Your task to perform on an android device: Go to privacy settings Image 0: 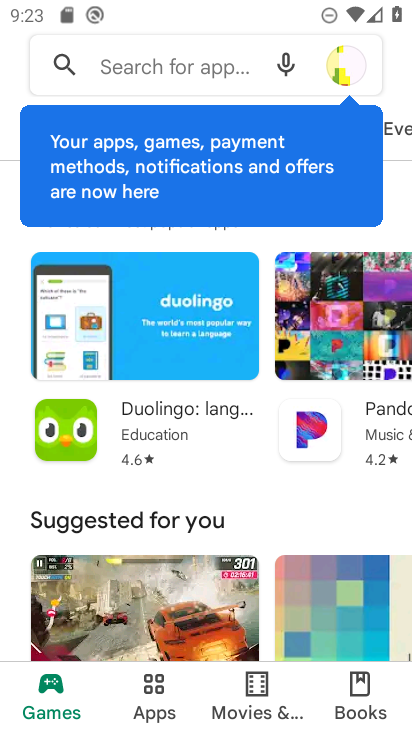
Step 0: press back button
Your task to perform on an android device: Go to privacy settings Image 1: 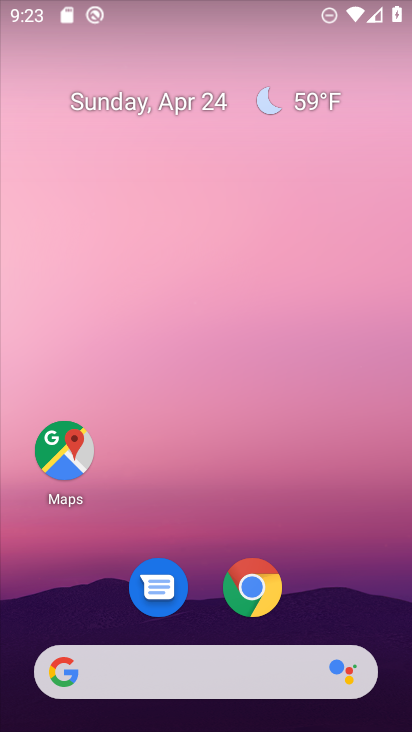
Step 1: drag from (228, 477) to (199, 65)
Your task to perform on an android device: Go to privacy settings Image 2: 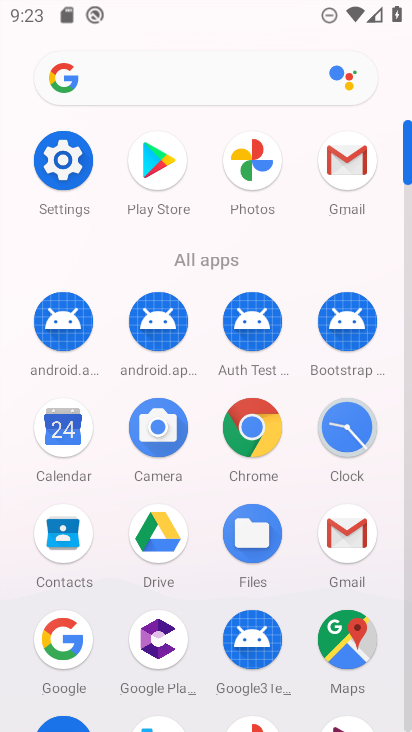
Step 2: click (61, 162)
Your task to perform on an android device: Go to privacy settings Image 3: 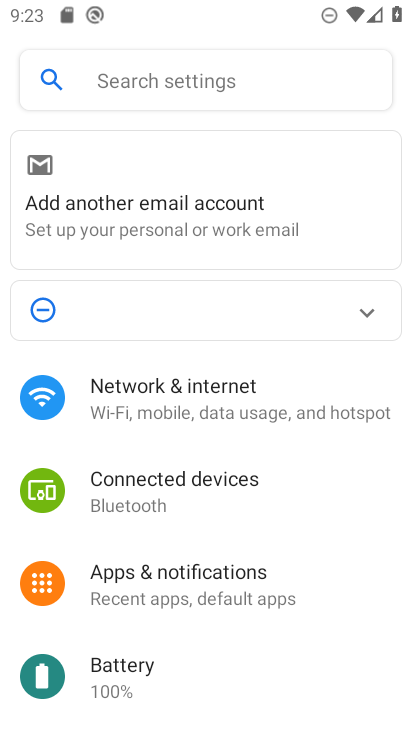
Step 3: drag from (168, 464) to (216, 373)
Your task to perform on an android device: Go to privacy settings Image 4: 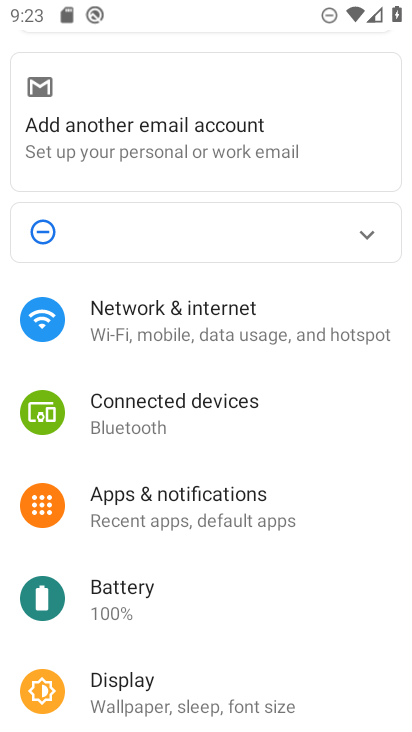
Step 4: drag from (140, 470) to (194, 363)
Your task to perform on an android device: Go to privacy settings Image 5: 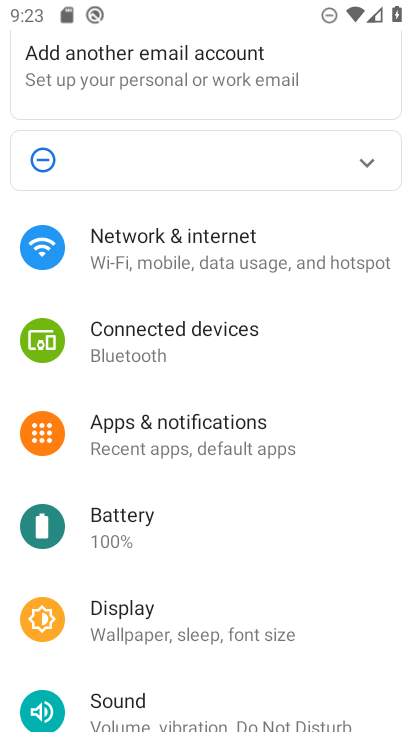
Step 5: drag from (186, 542) to (215, 442)
Your task to perform on an android device: Go to privacy settings Image 6: 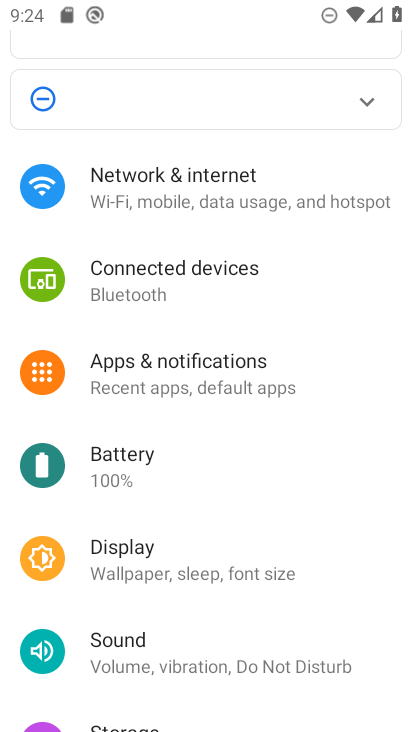
Step 6: drag from (177, 523) to (228, 436)
Your task to perform on an android device: Go to privacy settings Image 7: 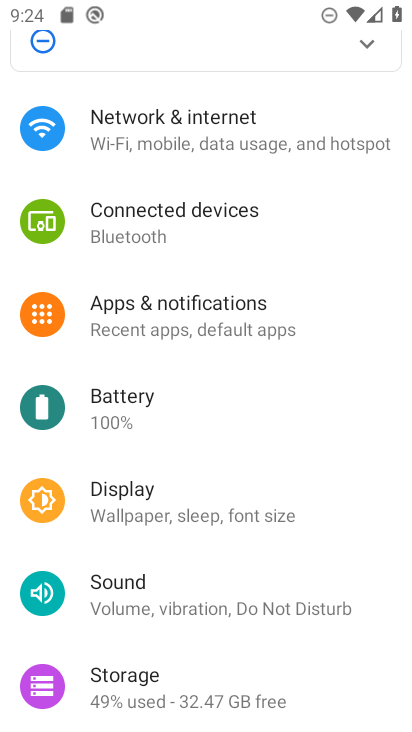
Step 7: drag from (179, 632) to (195, 509)
Your task to perform on an android device: Go to privacy settings Image 8: 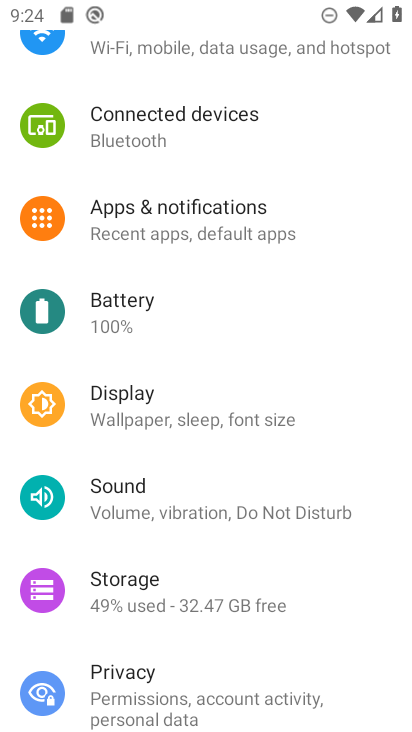
Step 8: drag from (170, 638) to (213, 532)
Your task to perform on an android device: Go to privacy settings Image 9: 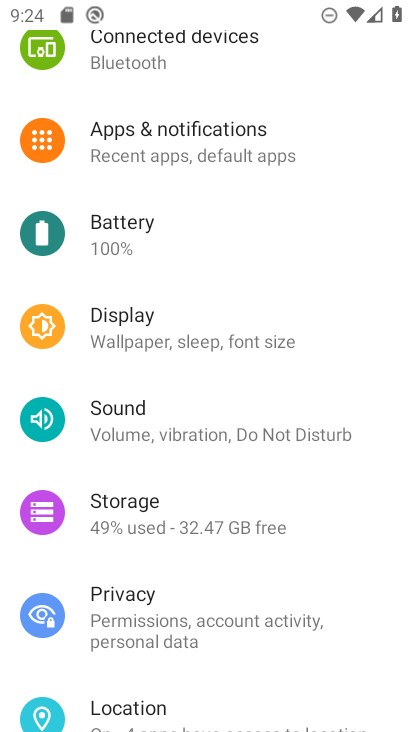
Step 9: click (150, 600)
Your task to perform on an android device: Go to privacy settings Image 10: 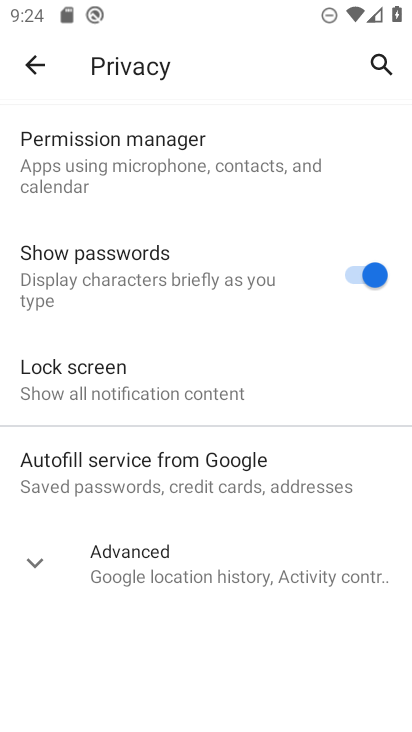
Step 10: task complete